Your task to perform on an android device: Do I have any events today? Image 0: 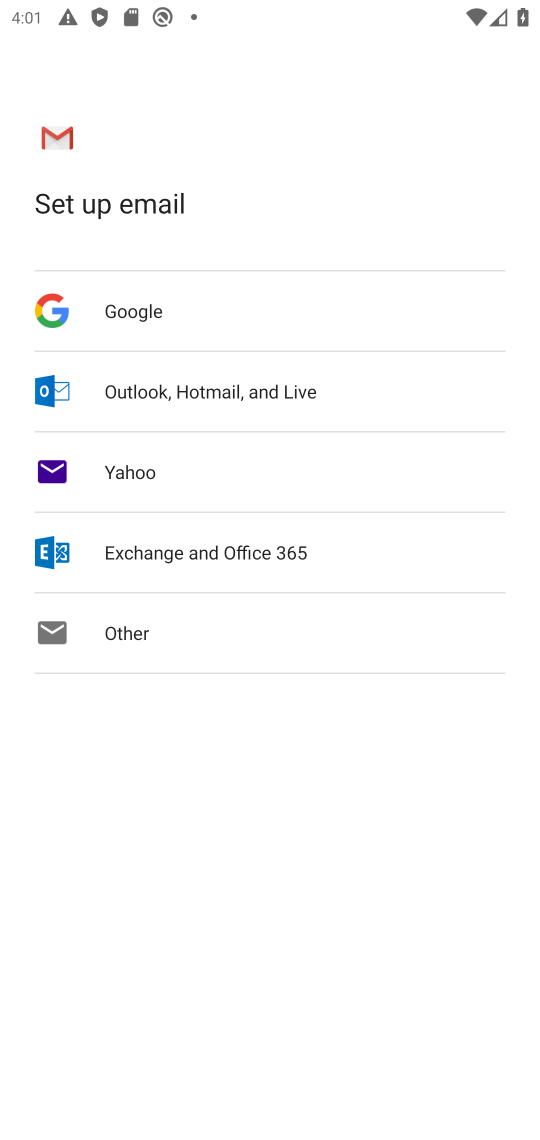
Step 0: press home button
Your task to perform on an android device: Do I have any events today? Image 1: 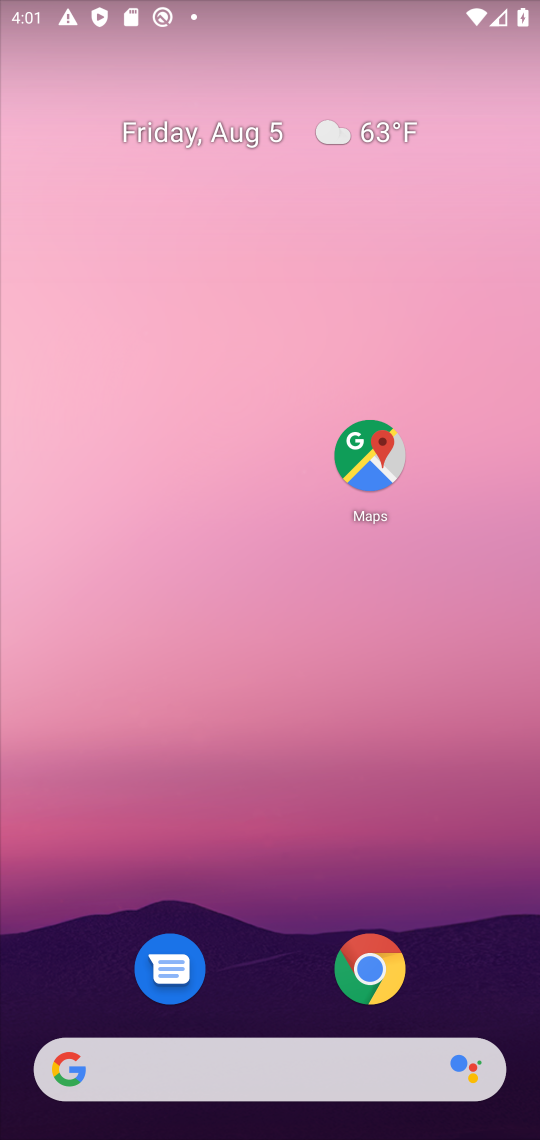
Step 1: drag from (301, 863) to (238, 161)
Your task to perform on an android device: Do I have any events today? Image 2: 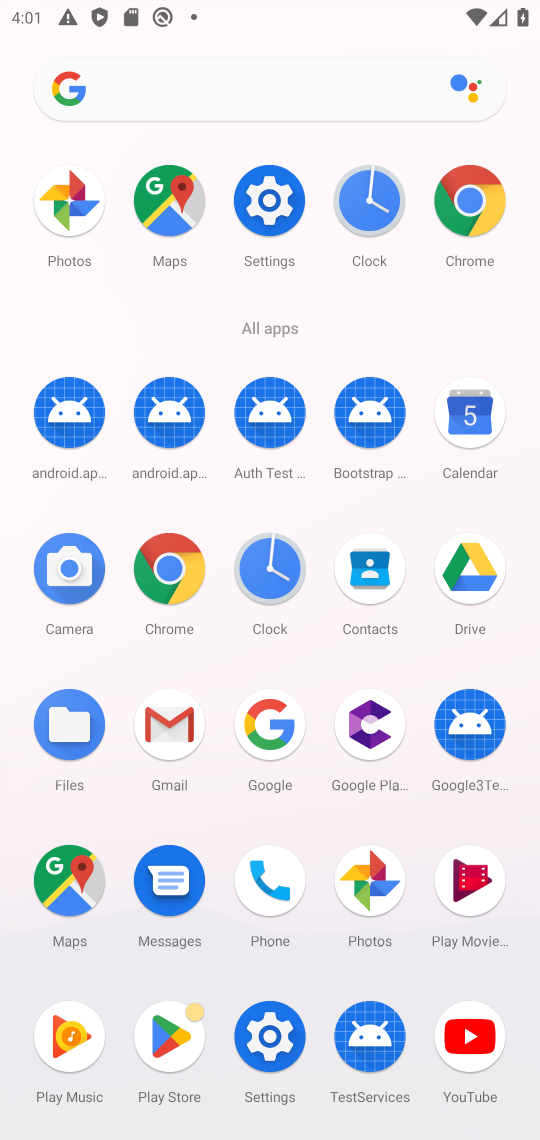
Step 2: click (449, 415)
Your task to perform on an android device: Do I have any events today? Image 3: 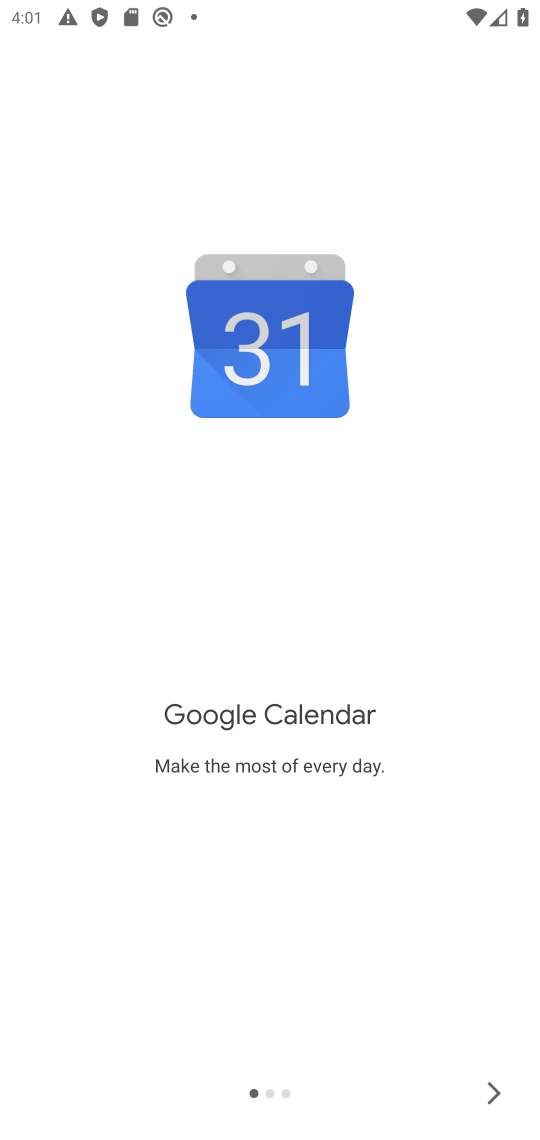
Step 3: click (500, 1088)
Your task to perform on an android device: Do I have any events today? Image 4: 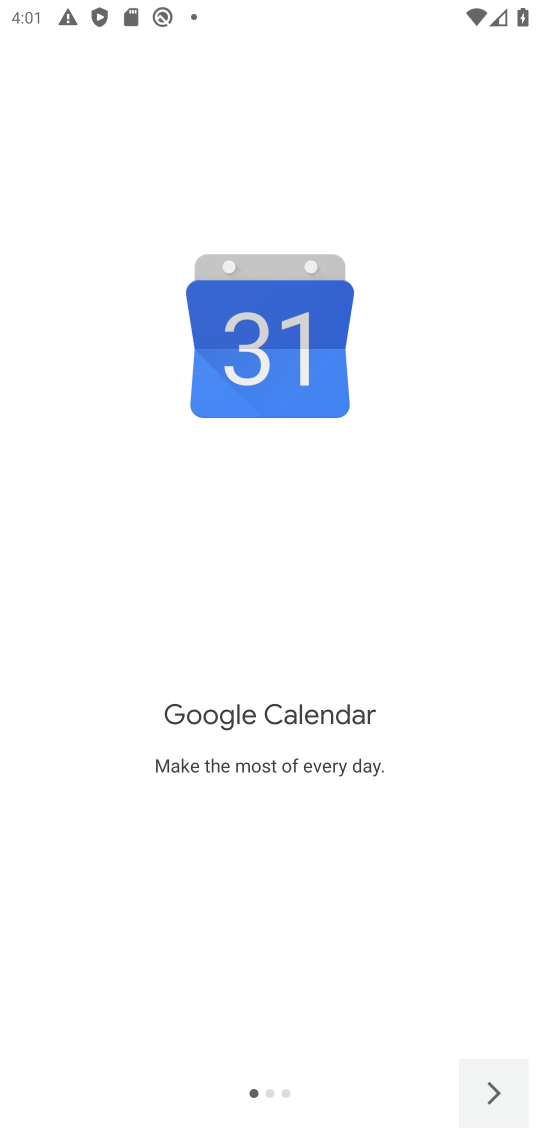
Step 4: click (500, 1088)
Your task to perform on an android device: Do I have any events today? Image 5: 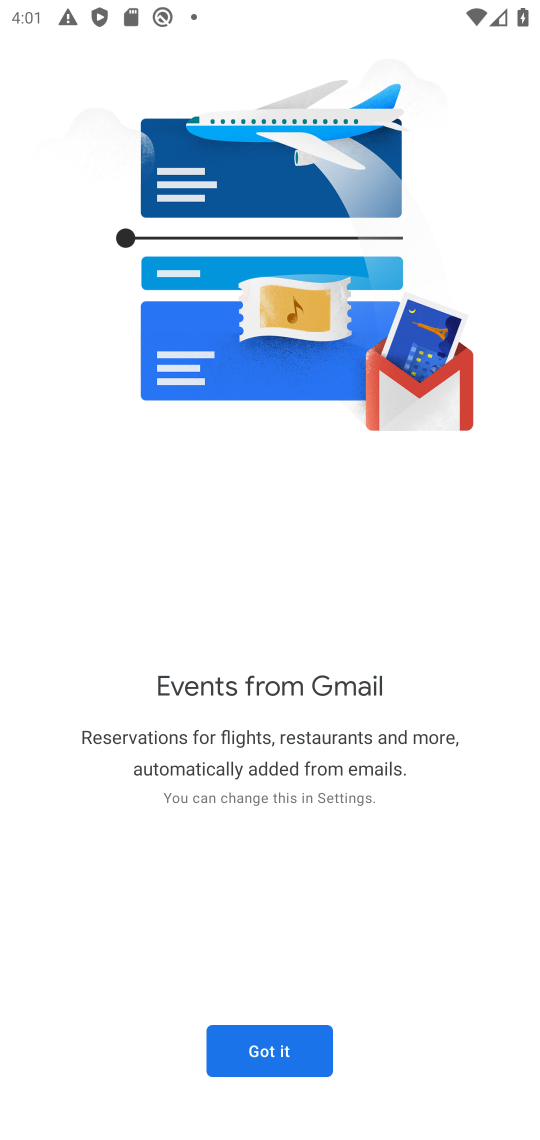
Step 5: click (500, 1088)
Your task to perform on an android device: Do I have any events today? Image 6: 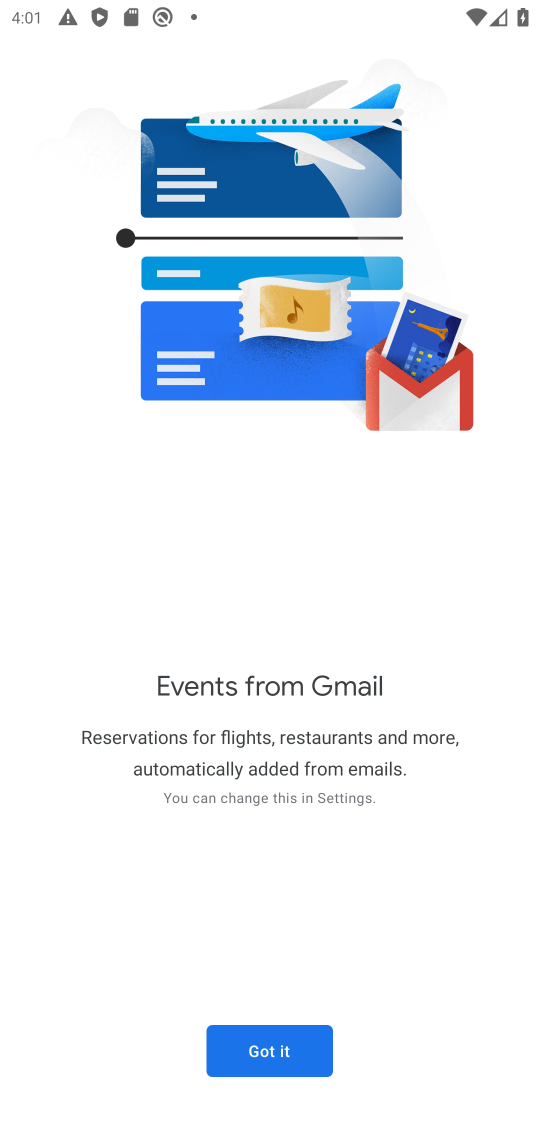
Step 6: click (315, 1041)
Your task to perform on an android device: Do I have any events today? Image 7: 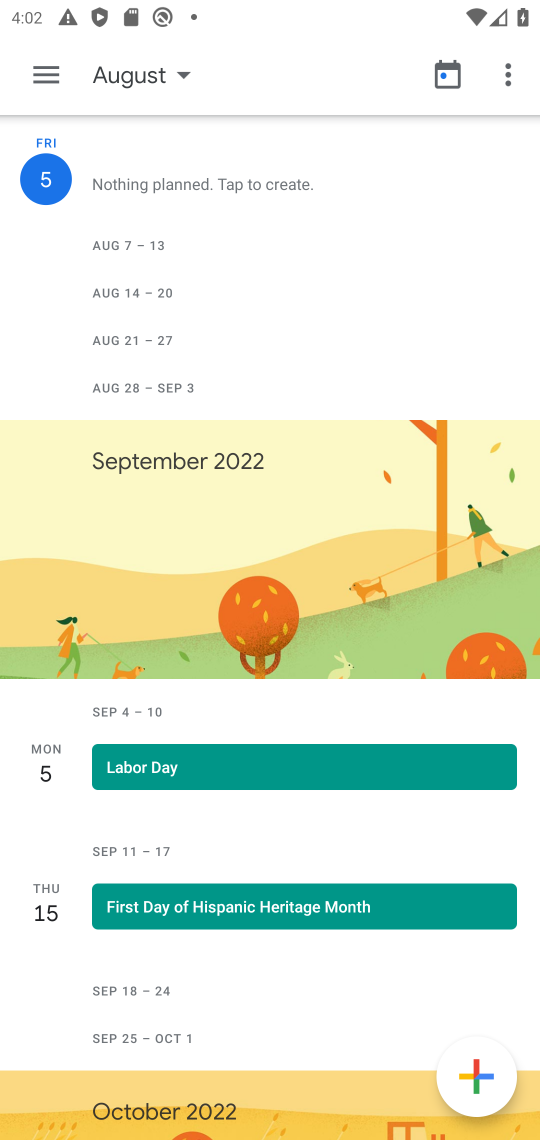
Step 7: task complete